Your task to perform on an android device: turn off translation in the chrome app Image 0: 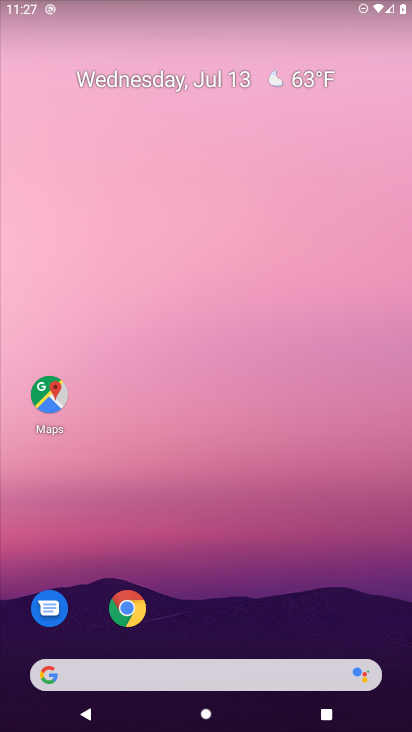
Step 0: press home button
Your task to perform on an android device: turn off translation in the chrome app Image 1: 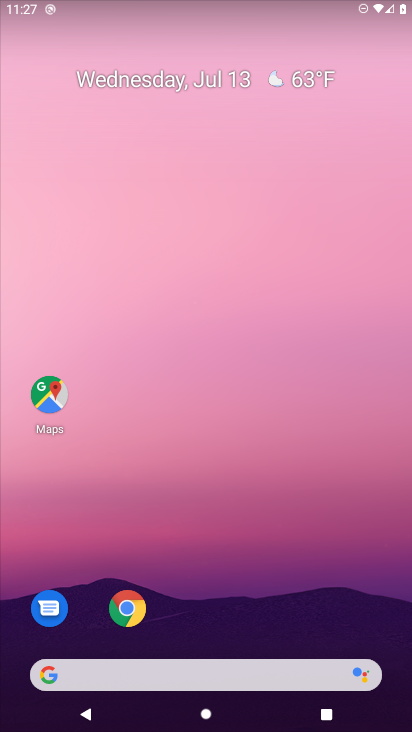
Step 1: drag from (266, 626) to (288, 147)
Your task to perform on an android device: turn off translation in the chrome app Image 2: 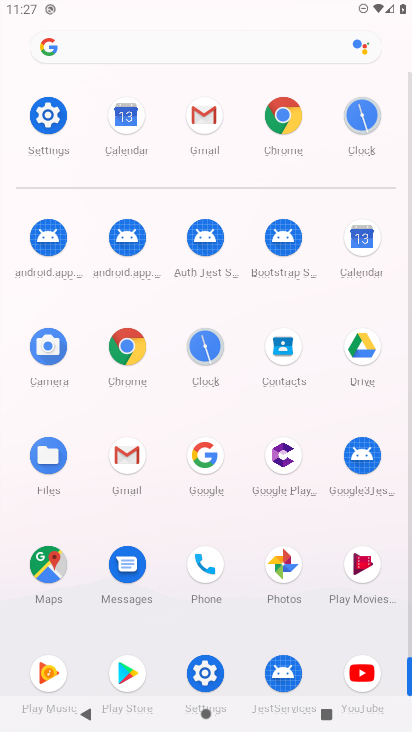
Step 2: click (278, 125)
Your task to perform on an android device: turn off translation in the chrome app Image 3: 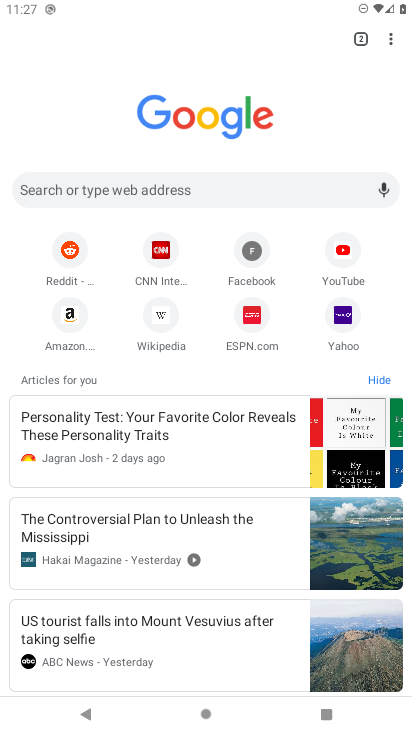
Step 3: drag from (387, 38) to (286, 326)
Your task to perform on an android device: turn off translation in the chrome app Image 4: 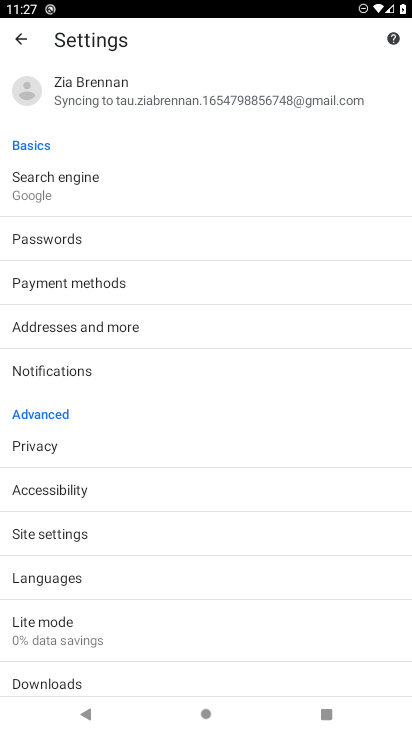
Step 4: click (100, 576)
Your task to perform on an android device: turn off translation in the chrome app Image 5: 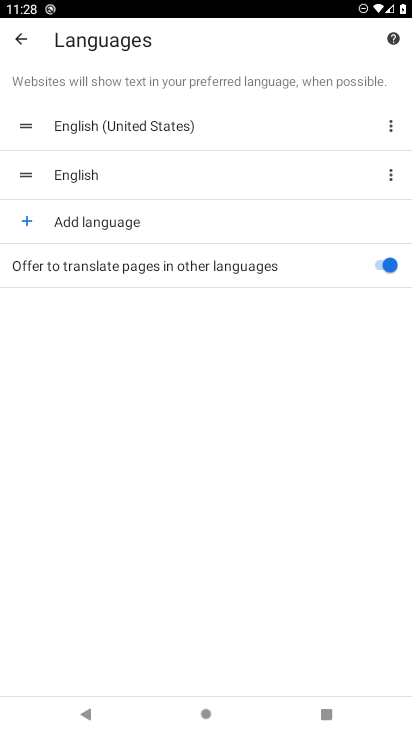
Step 5: click (388, 264)
Your task to perform on an android device: turn off translation in the chrome app Image 6: 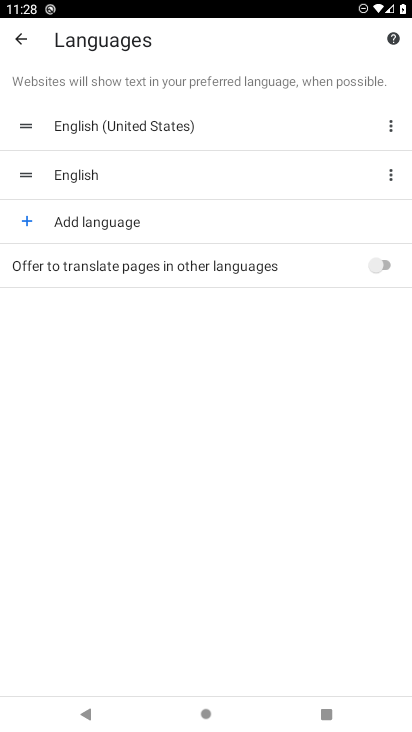
Step 6: task complete